Your task to perform on an android device: Go to network settings Image 0: 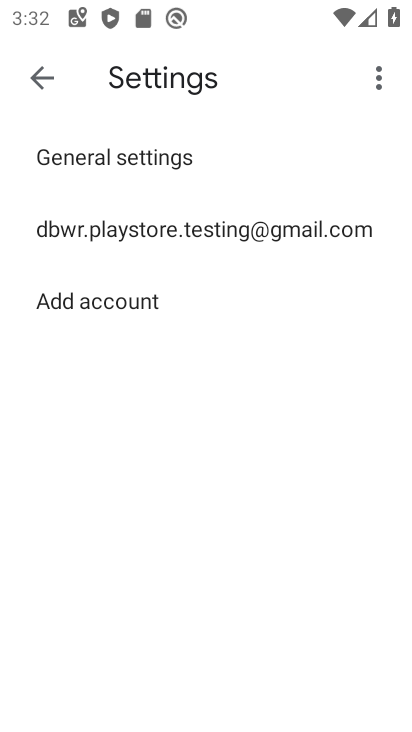
Step 0: press home button
Your task to perform on an android device: Go to network settings Image 1: 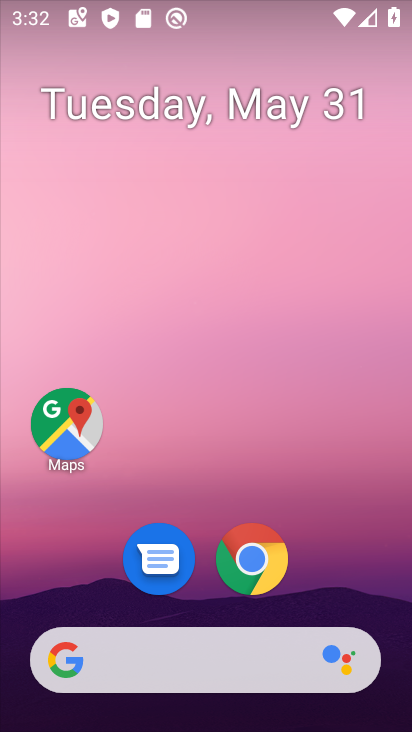
Step 1: drag from (205, 727) to (204, 103)
Your task to perform on an android device: Go to network settings Image 2: 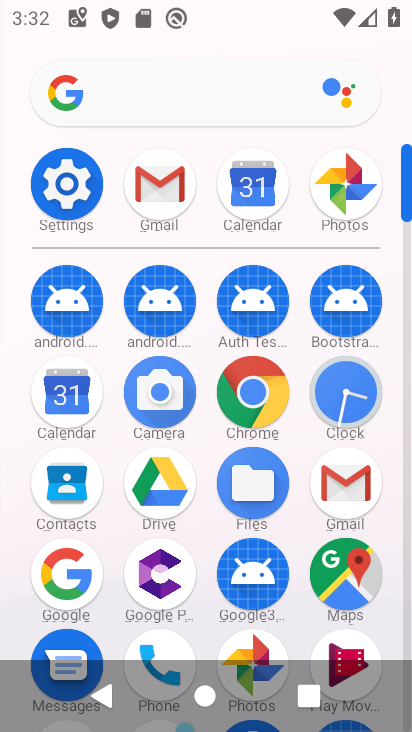
Step 2: click (57, 180)
Your task to perform on an android device: Go to network settings Image 3: 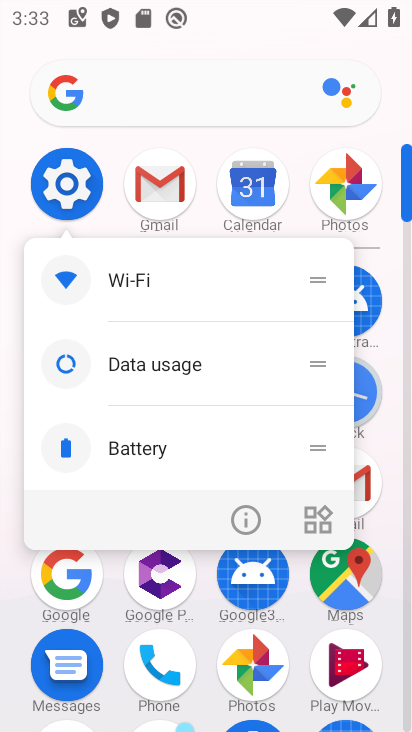
Step 3: click (74, 174)
Your task to perform on an android device: Go to network settings Image 4: 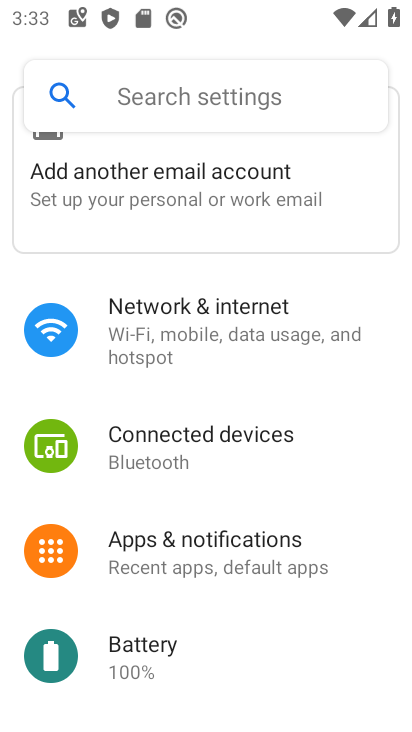
Step 4: click (171, 311)
Your task to perform on an android device: Go to network settings Image 5: 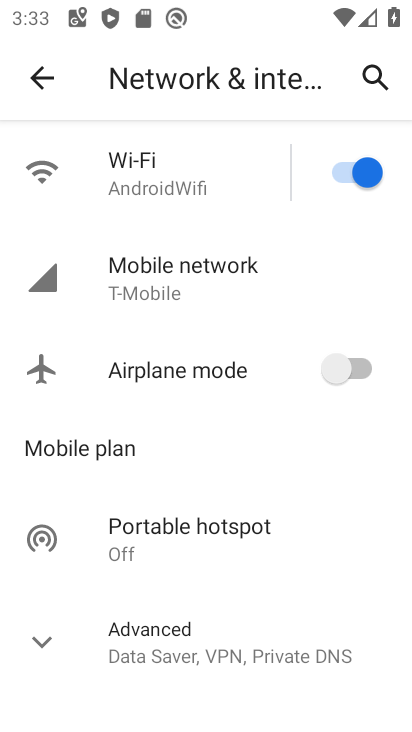
Step 5: click (177, 272)
Your task to perform on an android device: Go to network settings Image 6: 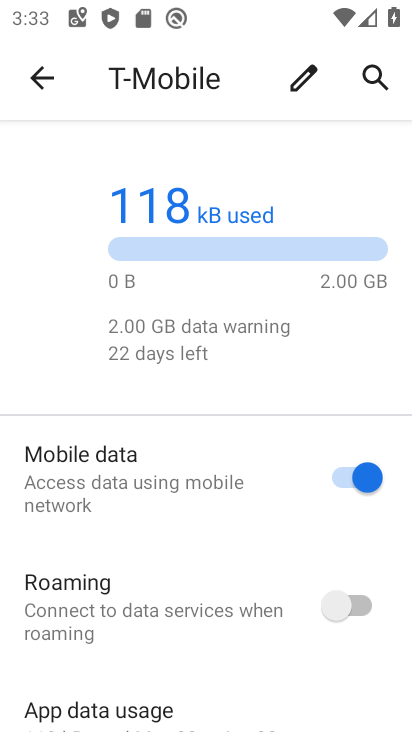
Step 6: task complete